Your task to perform on an android device: Go to location settings Image 0: 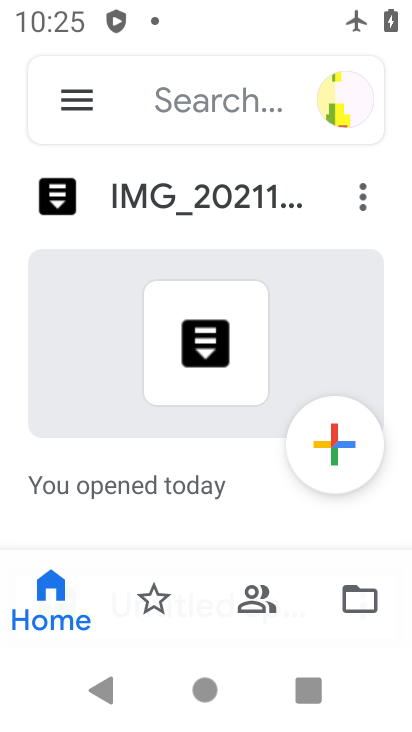
Step 0: press home button
Your task to perform on an android device: Go to location settings Image 1: 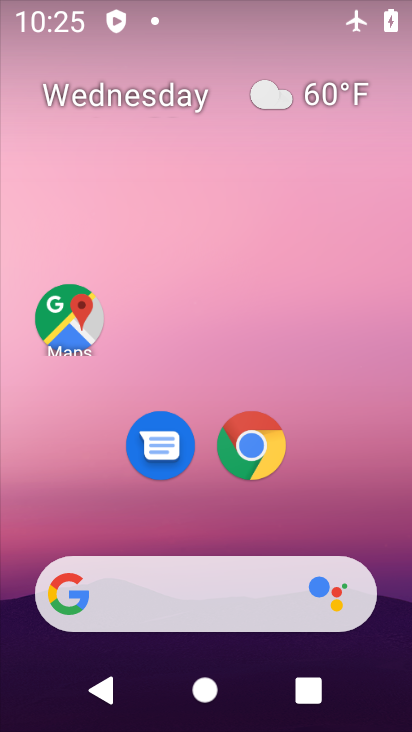
Step 1: drag from (207, 530) to (202, 121)
Your task to perform on an android device: Go to location settings Image 2: 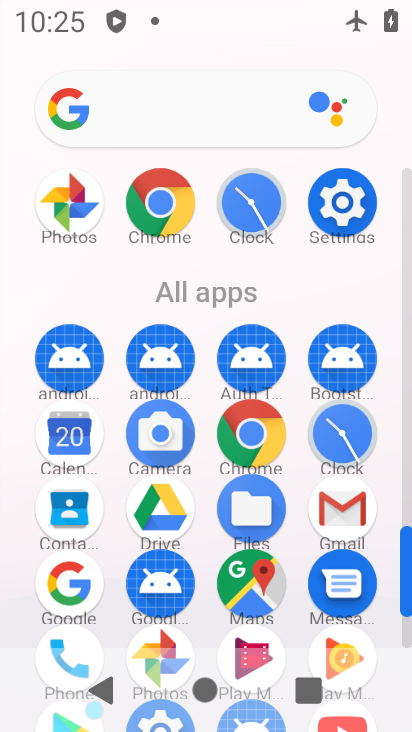
Step 2: click (309, 182)
Your task to perform on an android device: Go to location settings Image 3: 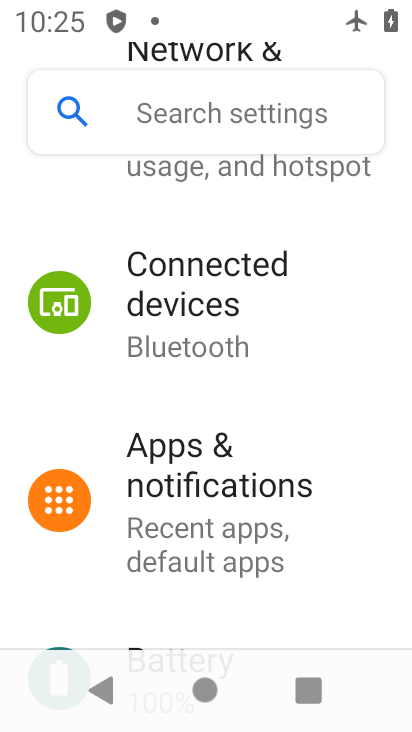
Step 3: drag from (248, 531) to (248, 262)
Your task to perform on an android device: Go to location settings Image 4: 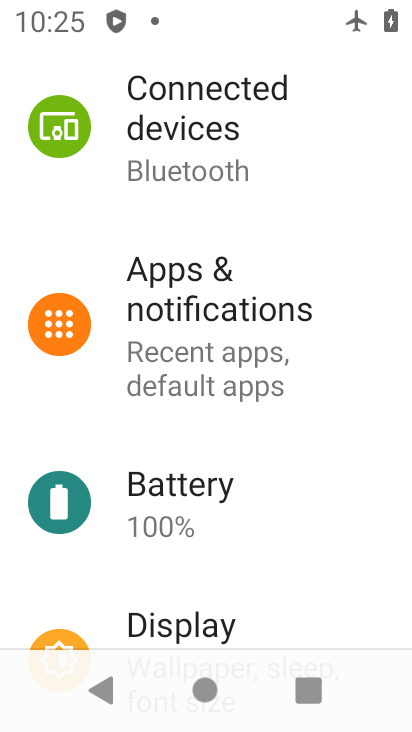
Step 4: drag from (248, 537) to (257, 219)
Your task to perform on an android device: Go to location settings Image 5: 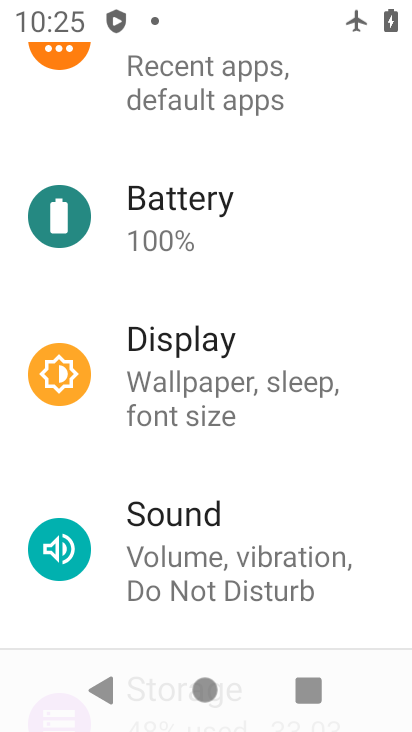
Step 5: drag from (261, 513) to (262, 239)
Your task to perform on an android device: Go to location settings Image 6: 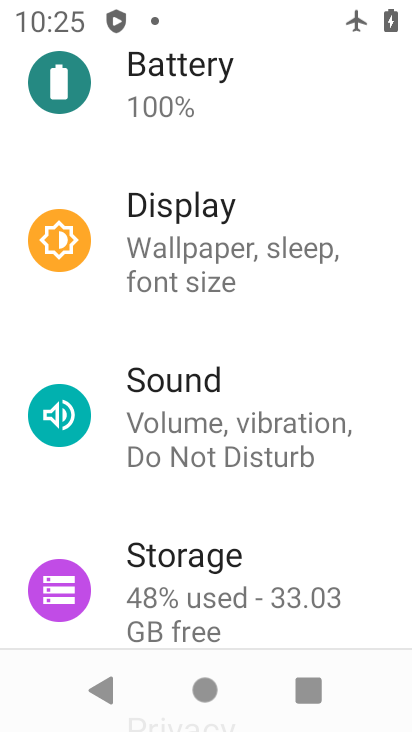
Step 6: drag from (243, 488) to (252, 211)
Your task to perform on an android device: Go to location settings Image 7: 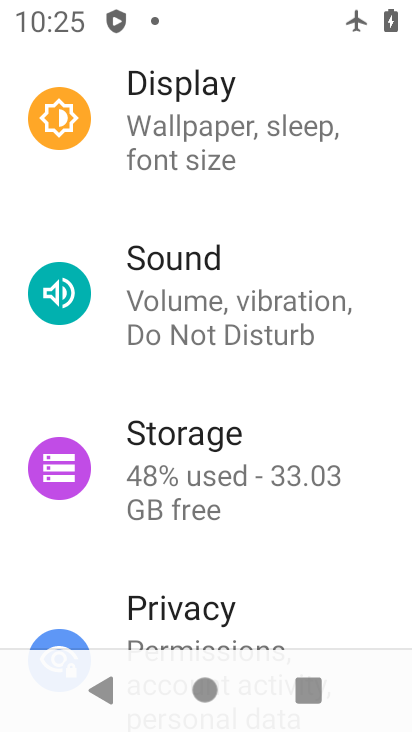
Step 7: drag from (256, 539) to (268, 240)
Your task to perform on an android device: Go to location settings Image 8: 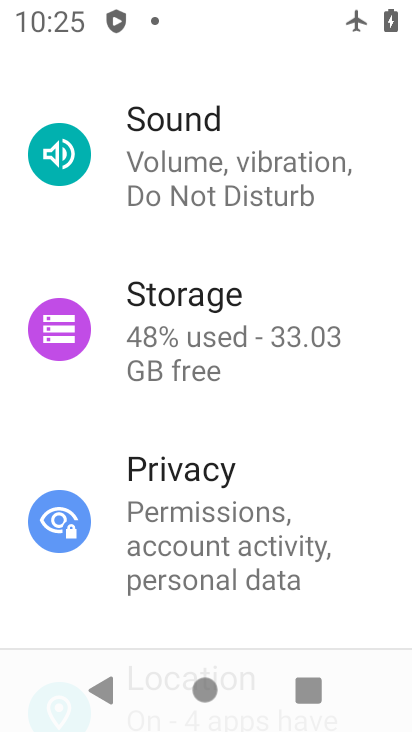
Step 8: drag from (241, 487) to (247, 152)
Your task to perform on an android device: Go to location settings Image 9: 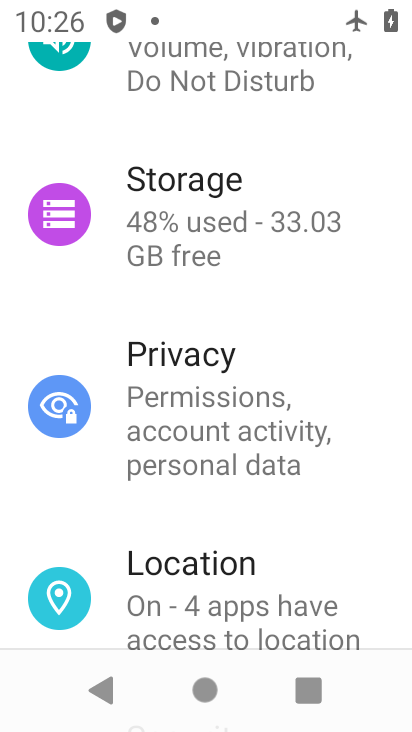
Step 9: click (248, 562)
Your task to perform on an android device: Go to location settings Image 10: 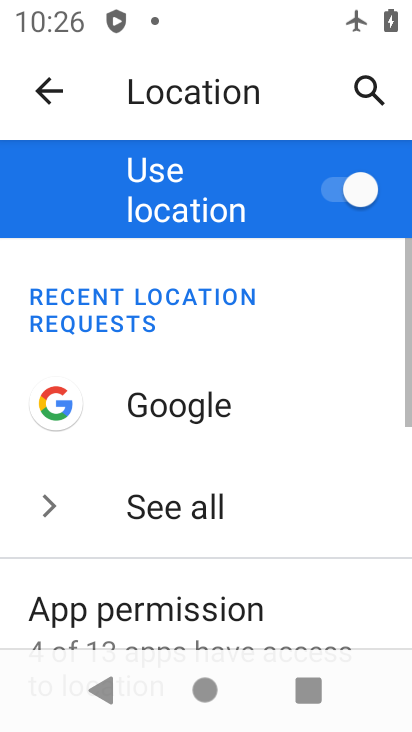
Step 10: task complete